Your task to perform on an android device: turn on javascript in the chrome app Image 0: 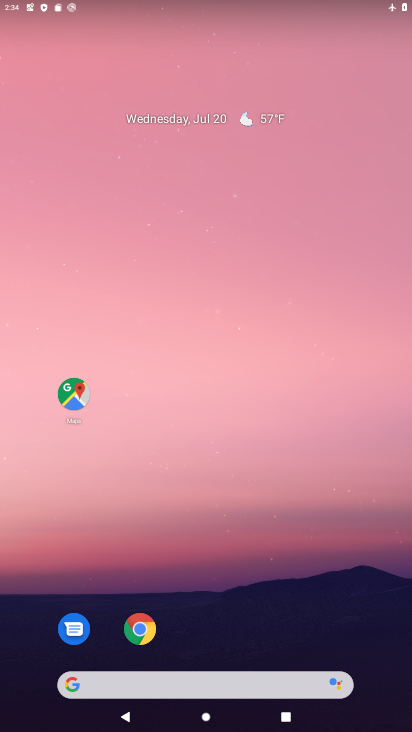
Step 0: click (154, 644)
Your task to perform on an android device: turn on javascript in the chrome app Image 1: 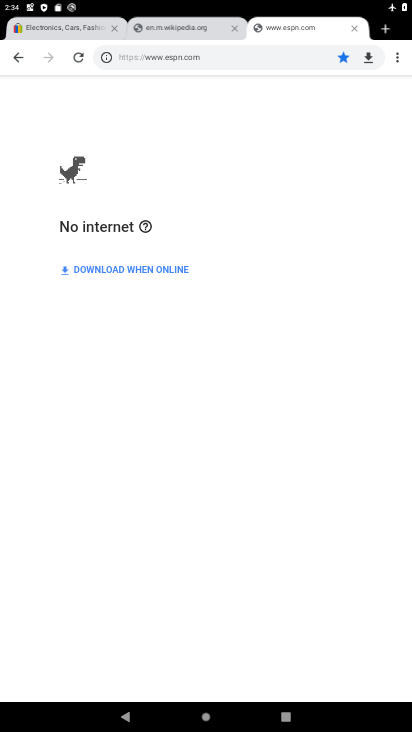
Step 1: click (391, 62)
Your task to perform on an android device: turn on javascript in the chrome app Image 2: 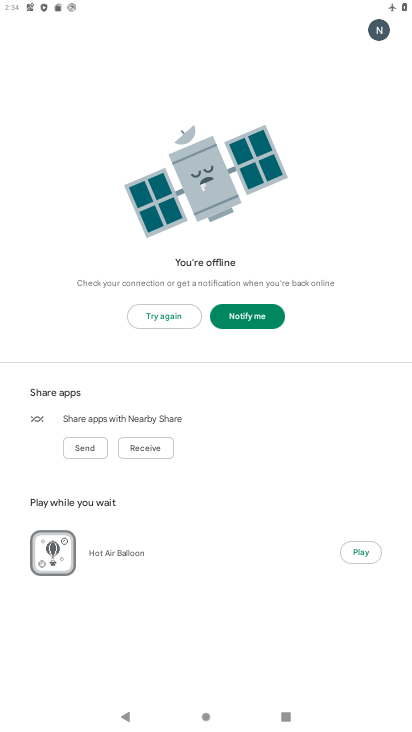
Step 2: press back button
Your task to perform on an android device: turn on javascript in the chrome app Image 3: 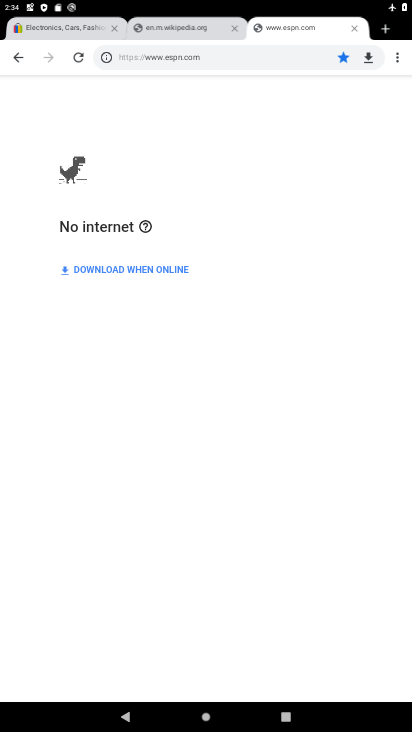
Step 3: click (395, 55)
Your task to perform on an android device: turn on javascript in the chrome app Image 4: 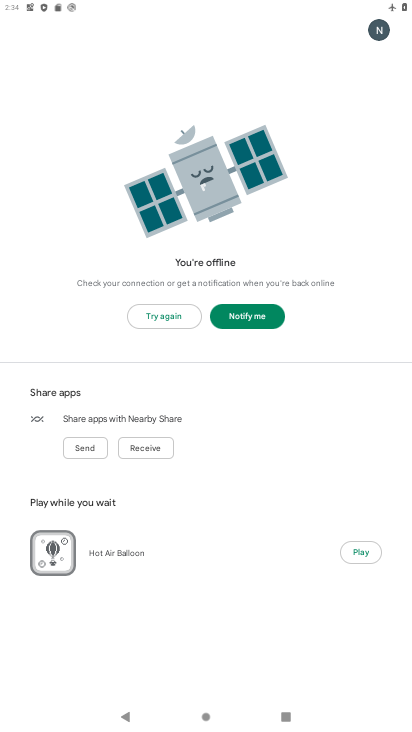
Step 4: press back button
Your task to perform on an android device: turn on javascript in the chrome app Image 5: 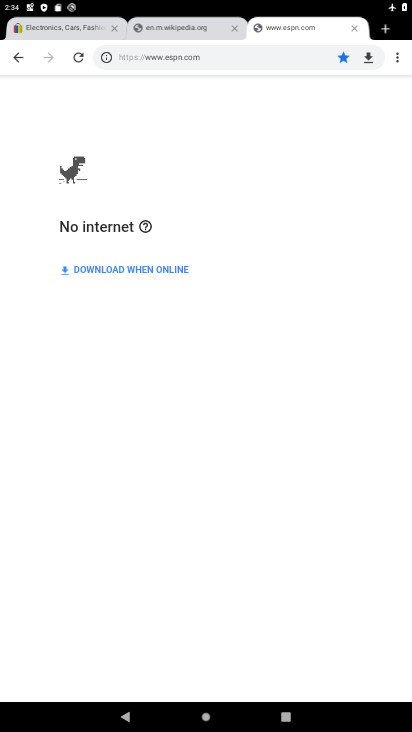
Step 5: drag from (397, 58) to (309, 393)
Your task to perform on an android device: turn on javascript in the chrome app Image 6: 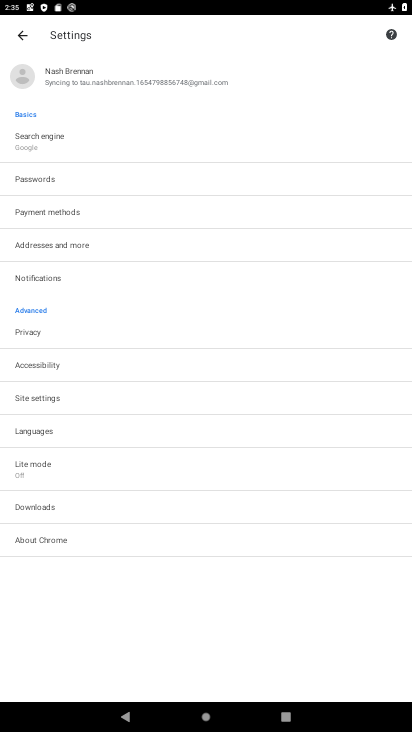
Step 6: click (55, 402)
Your task to perform on an android device: turn on javascript in the chrome app Image 7: 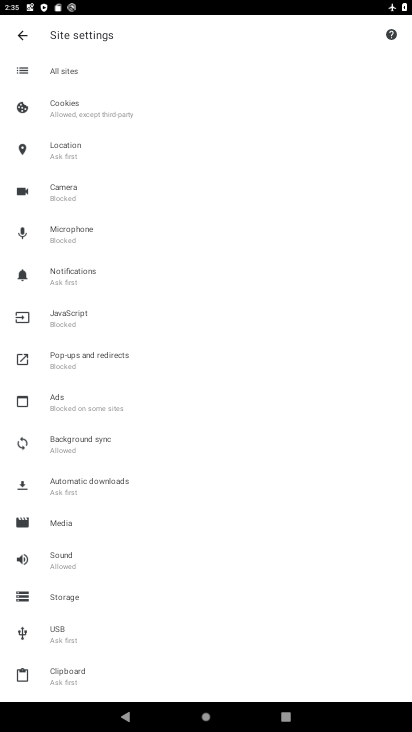
Step 7: click (72, 322)
Your task to perform on an android device: turn on javascript in the chrome app Image 8: 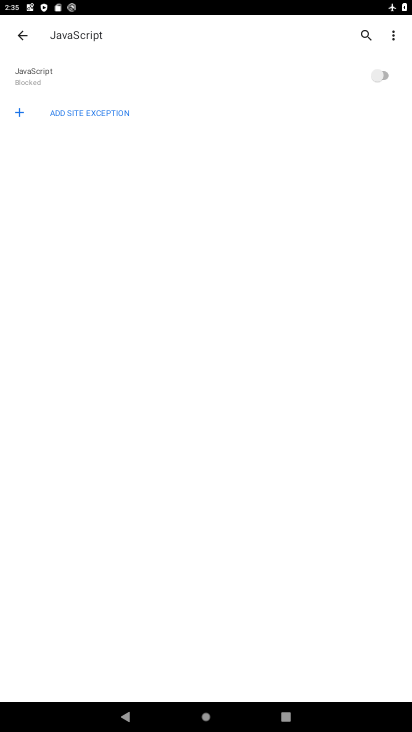
Step 8: click (384, 74)
Your task to perform on an android device: turn on javascript in the chrome app Image 9: 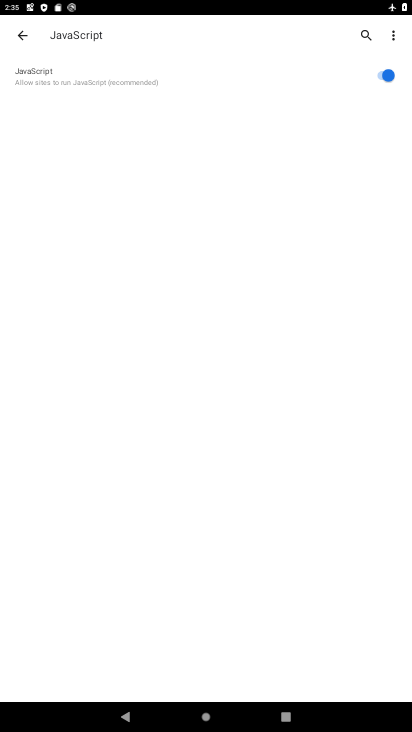
Step 9: task complete